Your task to perform on an android device: Check the news Image 0: 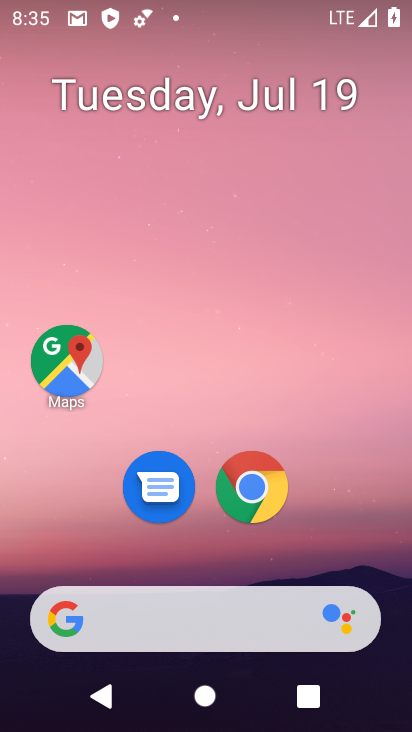
Step 0: click (211, 631)
Your task to perform on an android device: Check the news Image 1: 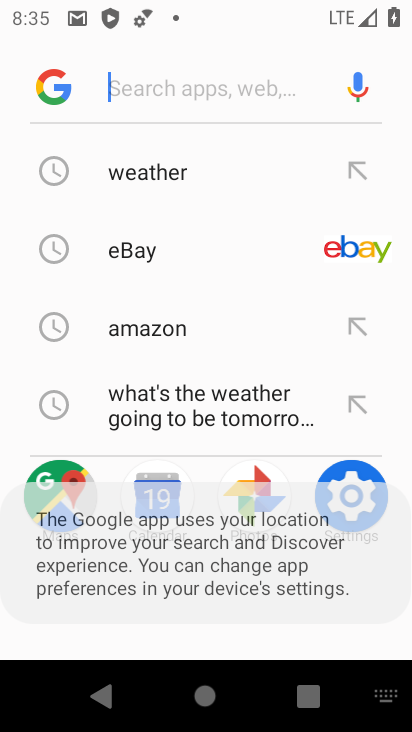
Step 1: click (154, 83)
Your task to perform on an android device: Check the news Image 2: 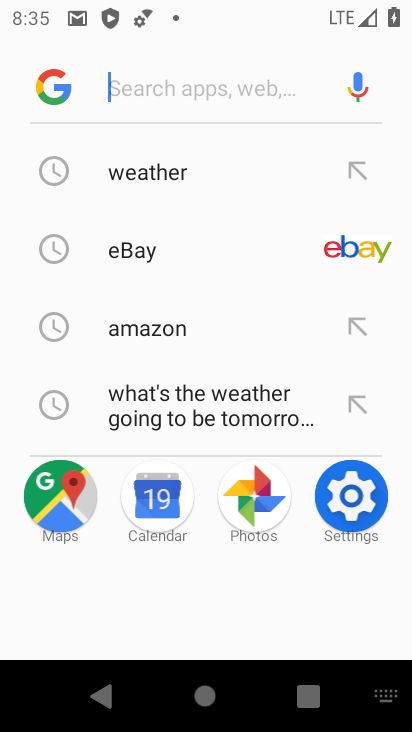
Step 2: type "news"
Your task to perform on an android device: Check the news Image 3: 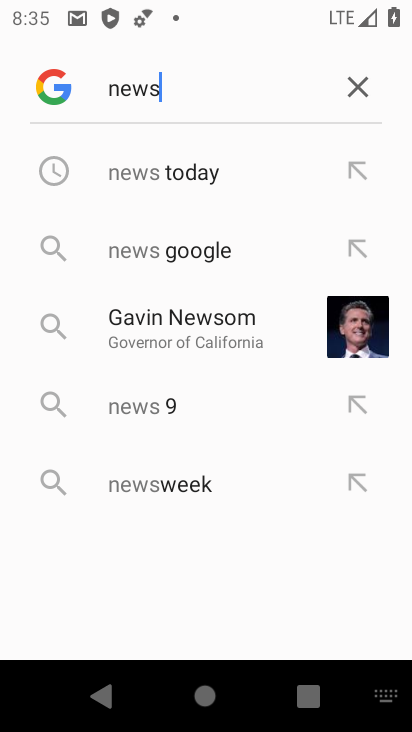
Step 3: click (147, 169)
Your task to perform on an android device: Check the news Image 4: 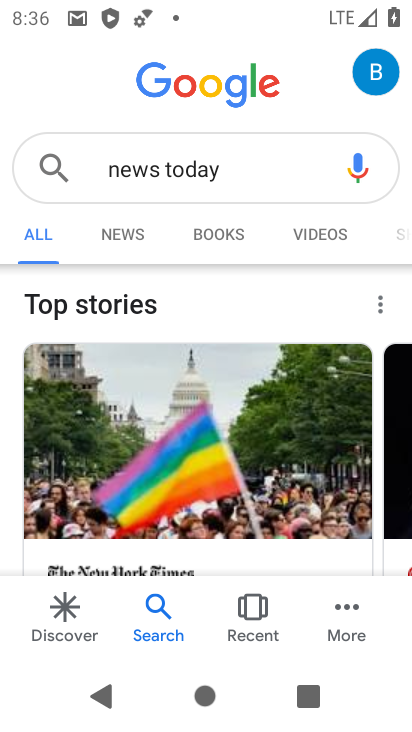
Step 4: task complete